Your task to perform on an android device: Go to settings Image 0: 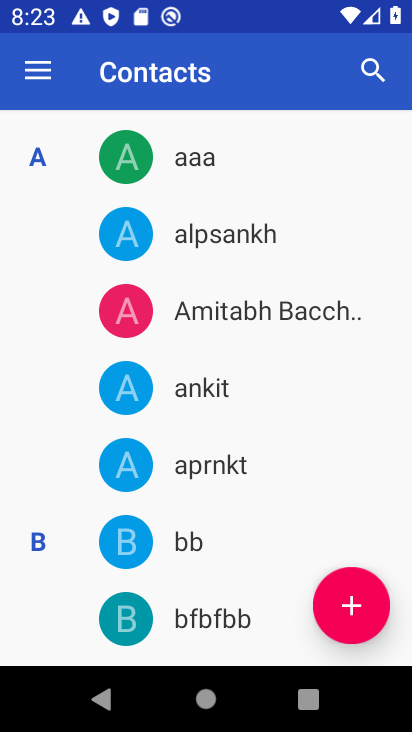
Step 0: press home button
Your task to perform on an android device: Go to settings Image 1: 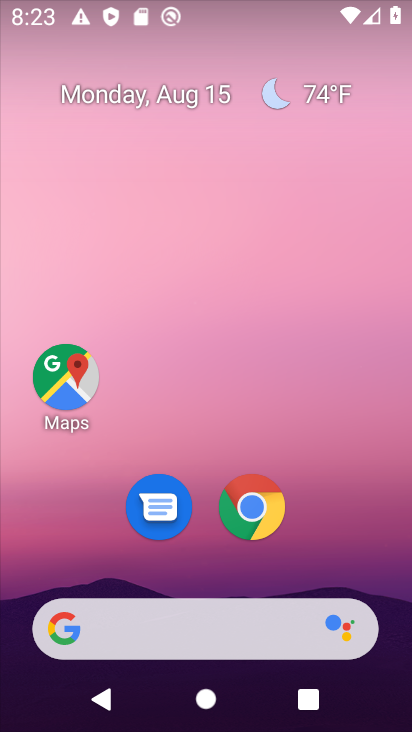
Step 1: drag from (327, 587) to (396, 54)
Your task to perform on an android device: Go to settings Image 2: 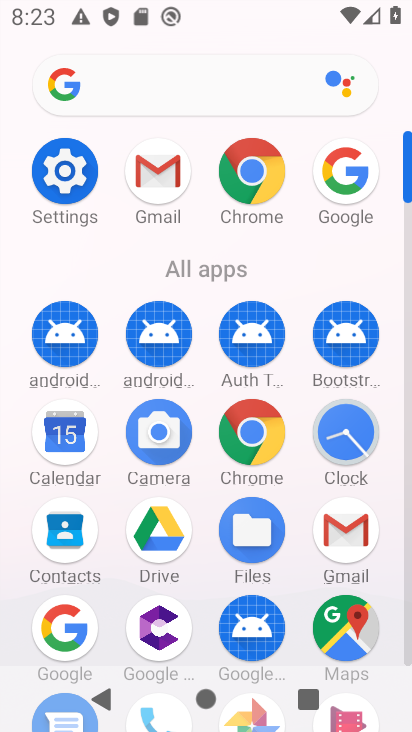
Step 2: click (47, 188)
Your task to perform on an android device: Go to settings Image 3: 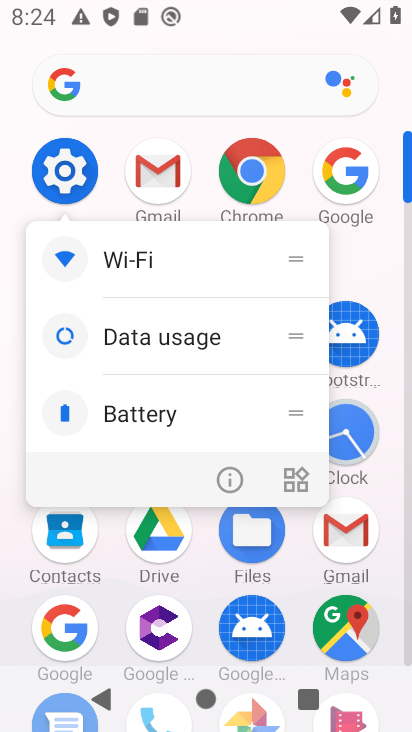
Step 3: click (51, 178)
Your task to perform on an android device: Go to settings Image 4: 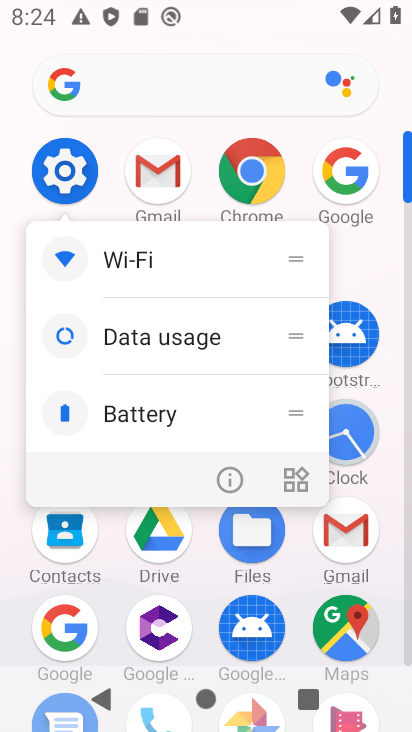
Step 4: click (62, 166)
Your task to perform on an android device: Go to settings Image 5: 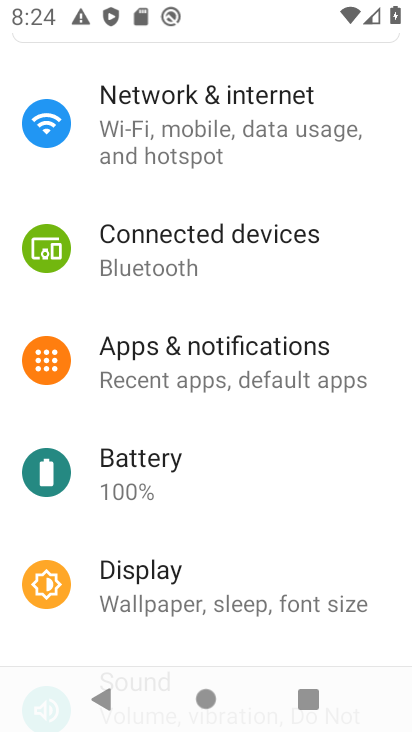
Step 5: task complete